Your task to perform on an android device: turn off priority inbox in the gmail app Image 0: 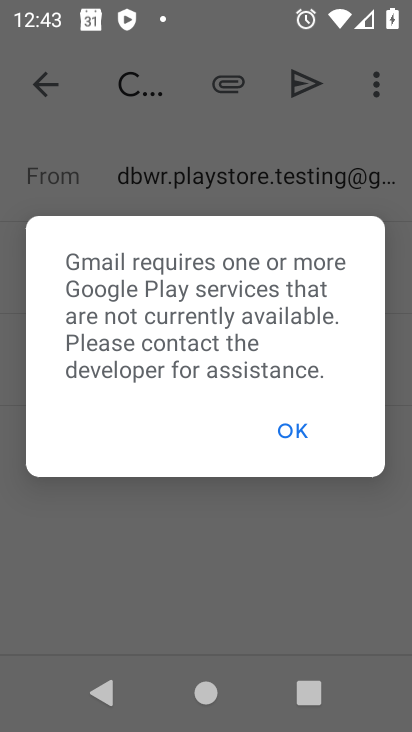
Step 0: press back button
Your task to perform on an android device: turn off priority inbox in the gmail app Image 1: 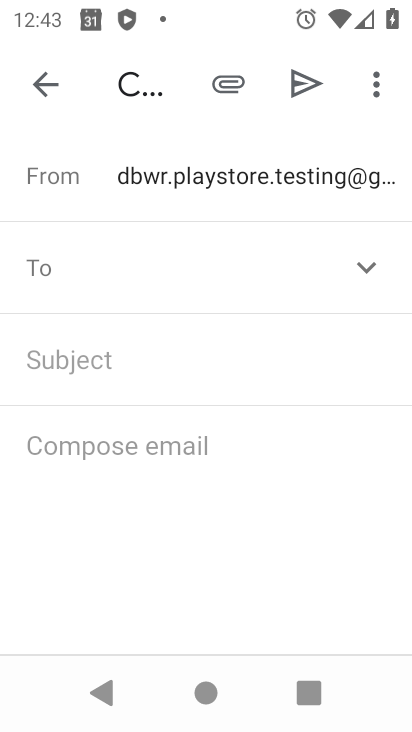
Step 1: press back button
Your task to perform on an android device: turn off priority inbox in the gmail app Image 2: 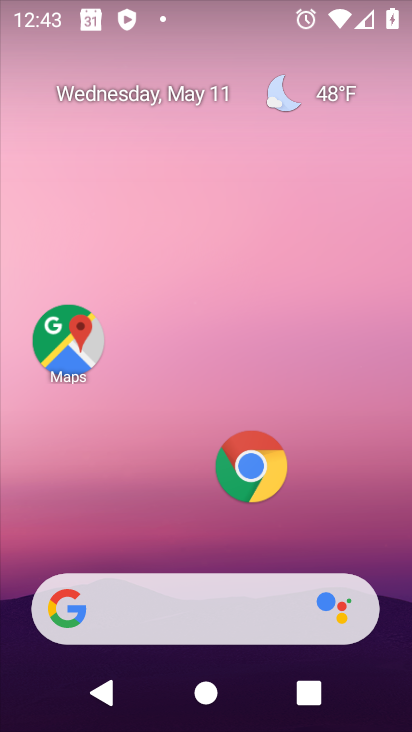
Step 2: drag from (142, 536) to (239, 82)
Your task to perform on an android device: turn off priority inbox in the gmail app Image 3: 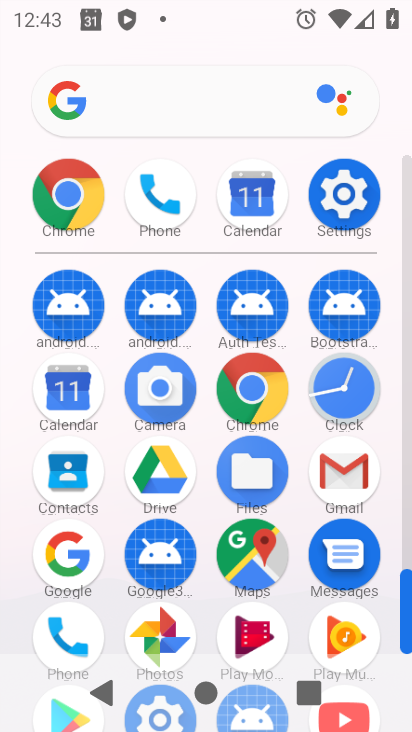
Step 3: click (349, 478)
Your task to perform on an android device: turn off priority inbox in the gmail app Image 4: 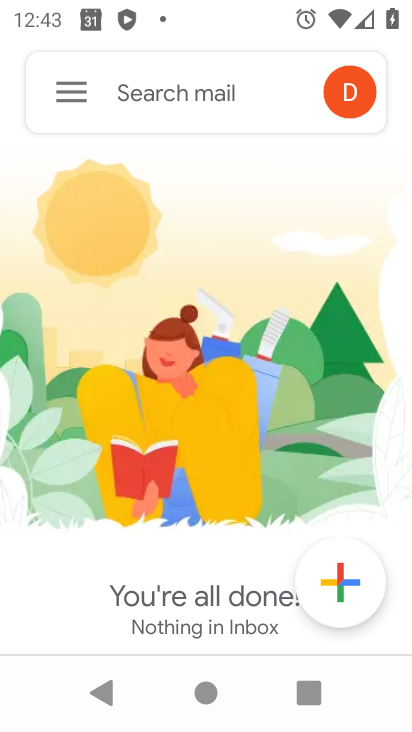
Step 4: click (73, 88)
Your task to perform on an android device: turn off priority inbox in the gmail app Image 5: 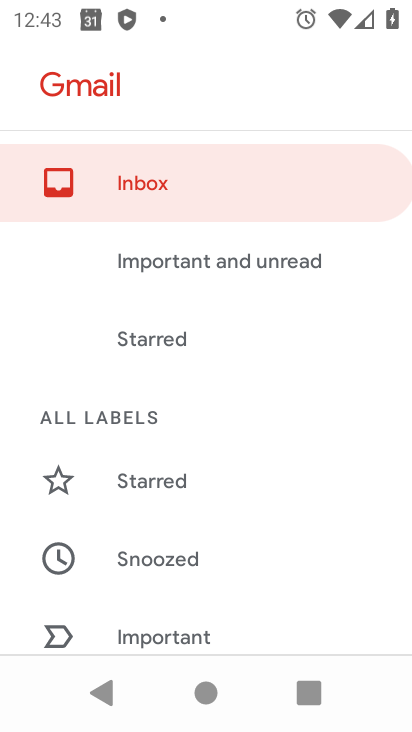
Step 5: drag from (157, 612) to (291, 34)
Your task to perform on an android device: turn off priority inbox in the gmail app Image 6: 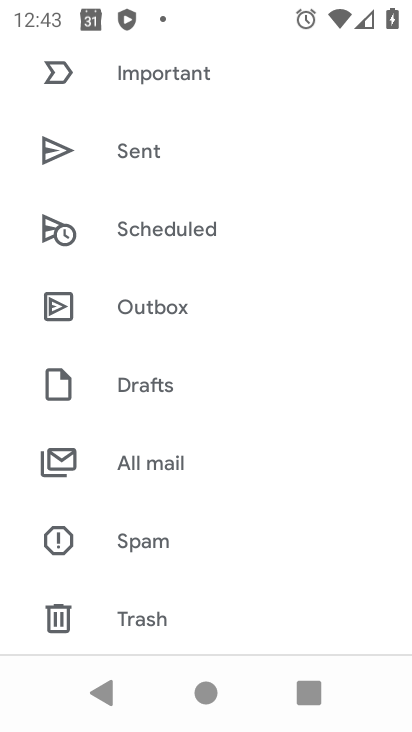
Step 6: drag from (181, 569) to (279, 89)
Your task to perform on an android device: turn off priority inbox in the gmail app Image 7: 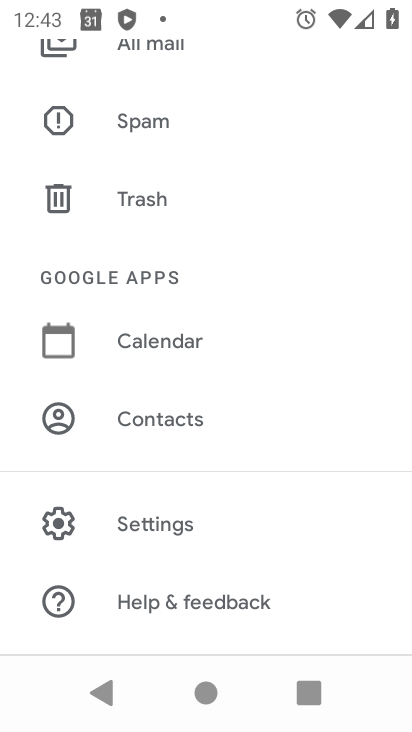
Step 7: click (157, 530)
Your task to perform on an android device: turn off priority inbox in the gmail app Image 8: 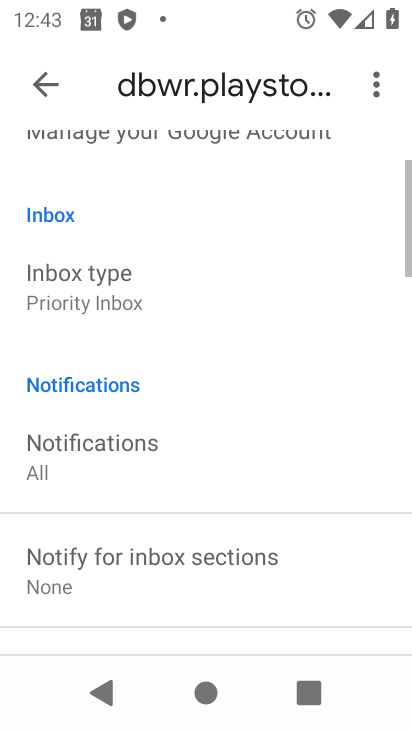
Step 8: drag from (173, 572) to (187, 611)
Your task to perform on an android device: turn off priority inbox in the gmail app Image 9: 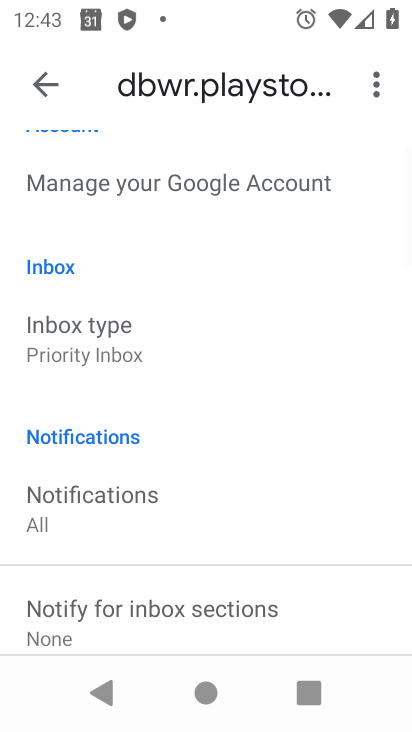
Step 9: click (77, 333)
Your task to perform on an android device: turn off priority inbox in the gmail app Image 10: 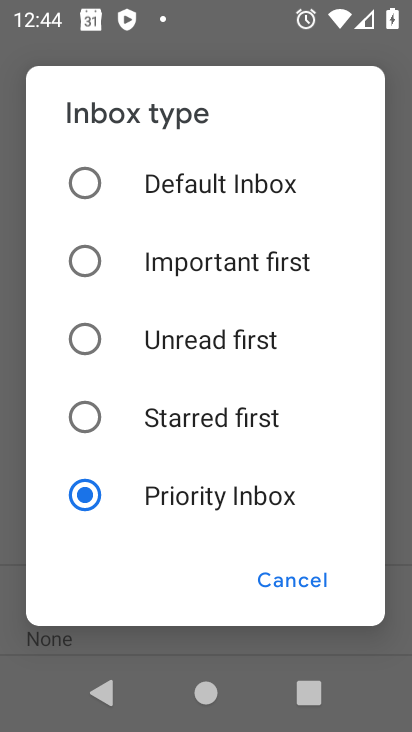
Step 10: click (82, 174)
Your task to perform on an android device: turn off priority inbox in the gmail app Image 11: 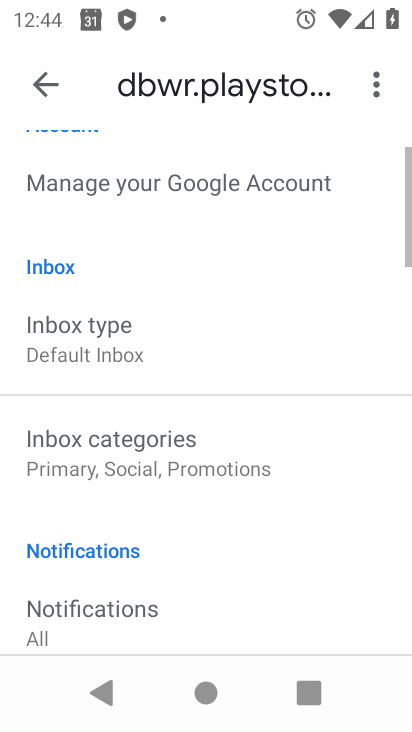
Step 11: task complete